Your task to perform on an android device: Open Reddit.com Image 0: 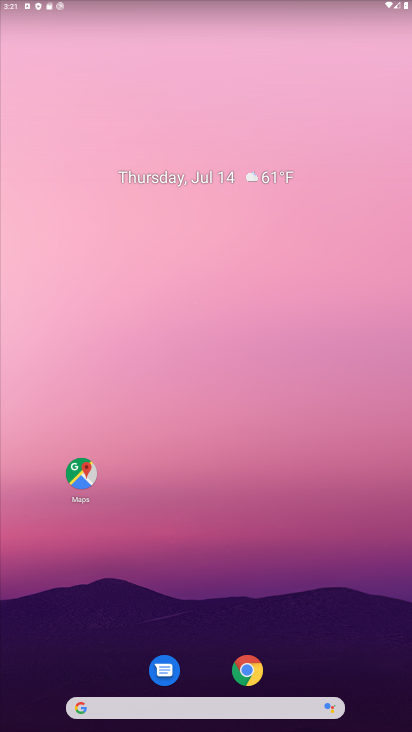
Step 0: click (175, 715)
Your task to perform on an android device: Open Reddit.com Image 1: 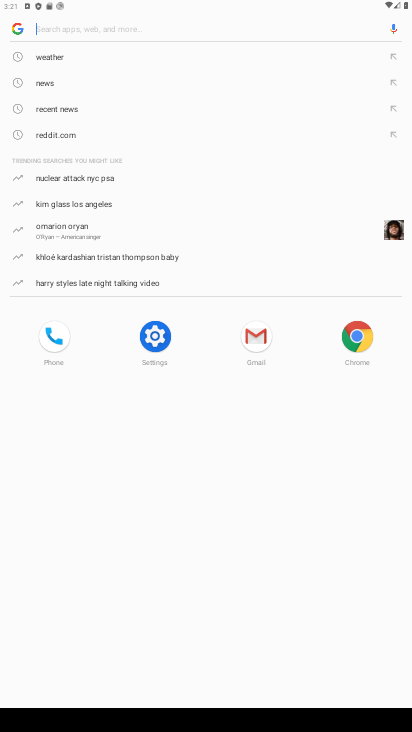
Step 1: type "reddit"
Your task to perform on an android device: Open Reddit.com Image 2: 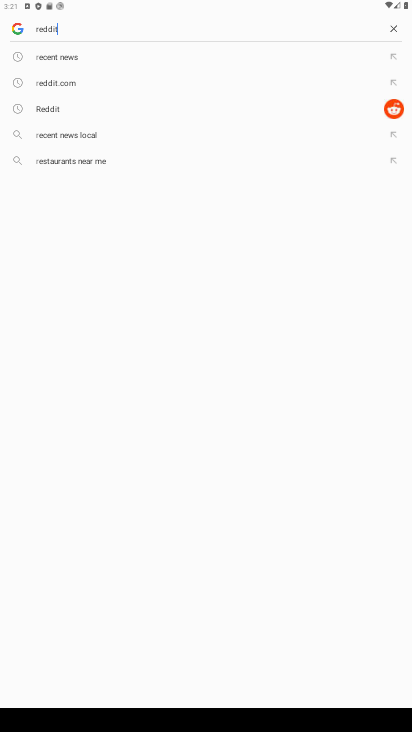
Step 2: type ""
Your task to perform on an android device: Open Reddit.com Image 3: 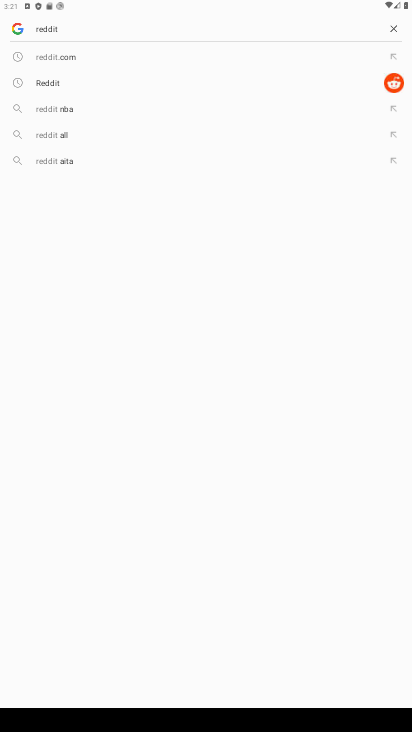
Step 3: click (80, 75)
Your task to perform on an android device: Open Reddit.com Image 4: 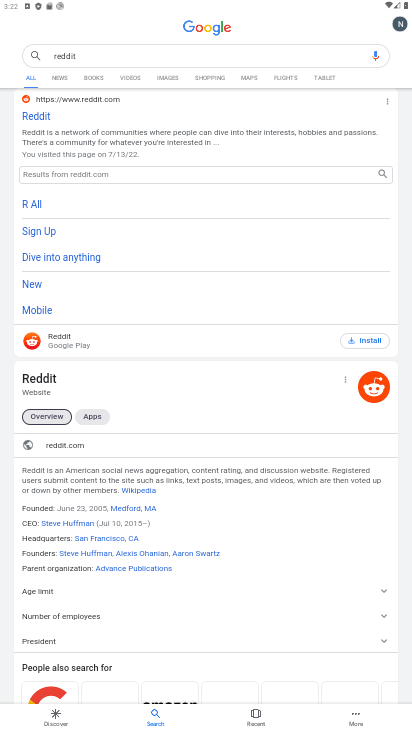
Step 4: click (28, 99)
Your task to perform on an android device: Open Reddit.com Image 5: 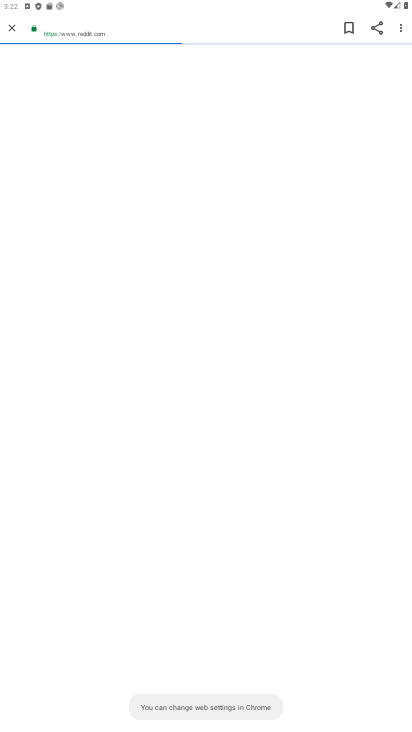
Step 5: click (49, 124)
Your task to perform on an android device: Open Reddit.com Image 6: 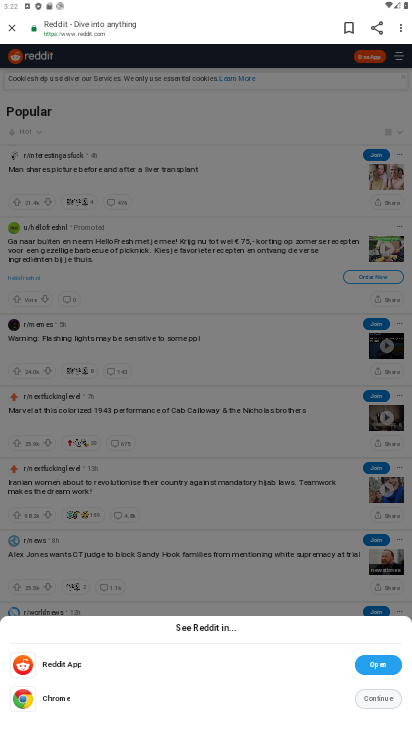
Step 6: task complete